Your task to perform on an android device: Open eBay Image 0: 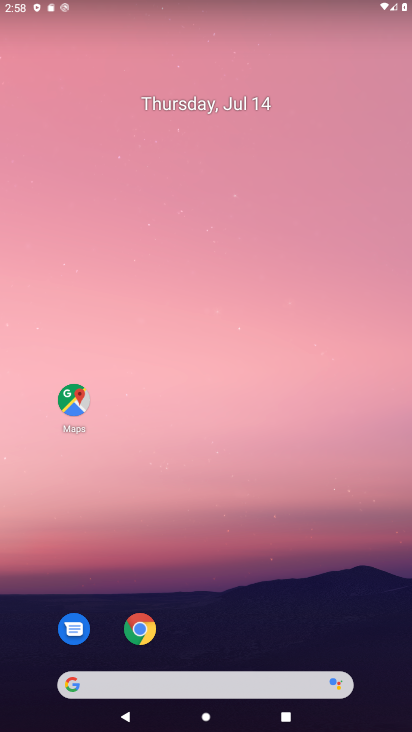
Step 0: click (150, 628)
Your task to perform on an android device: Open eBay Image 1: 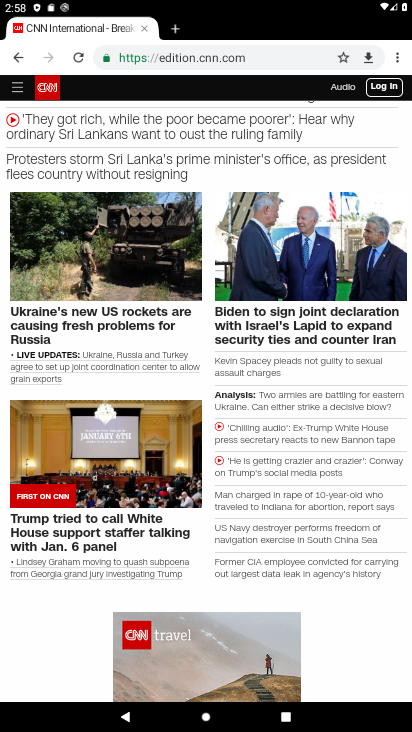
Step 1: click (176, 31)
Your task to perform on an android device: Open eBay Image 2: 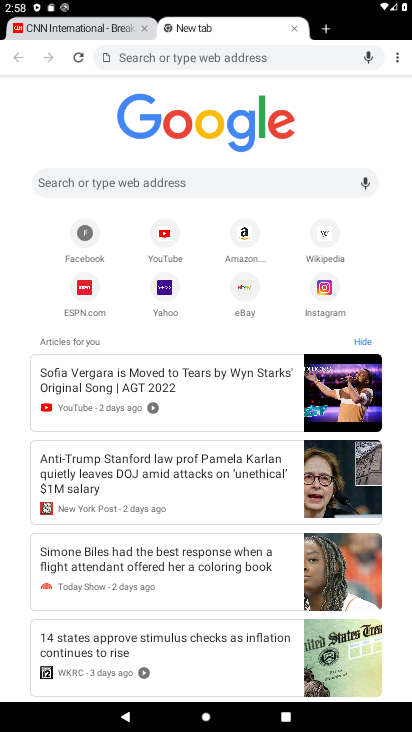
Step 2: click (242, 285)
Your task to perform on an android device: Open eBay Image 3: 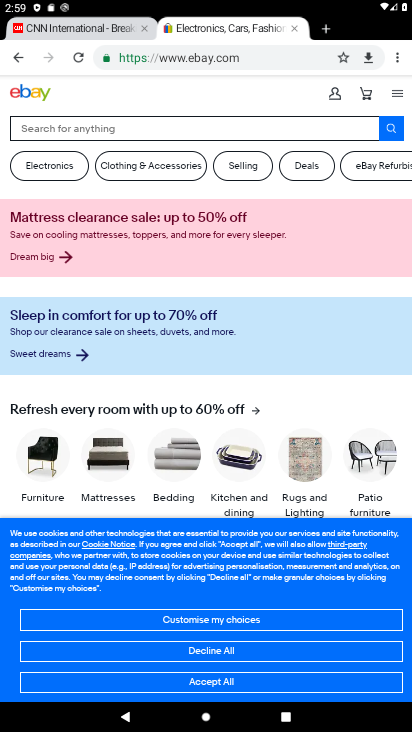
Step 3: click (222, 682)
Your task to perform on an android device: Open eBay Image 4: 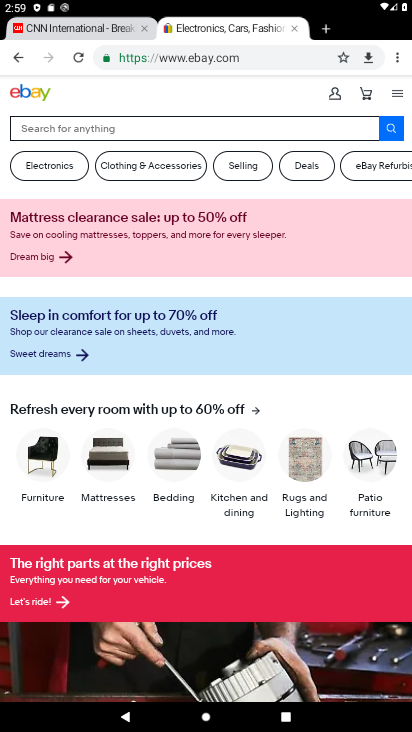
Step 4: task complete